Your task to perform on an android device: toggle translation in the chrome app Image 0: 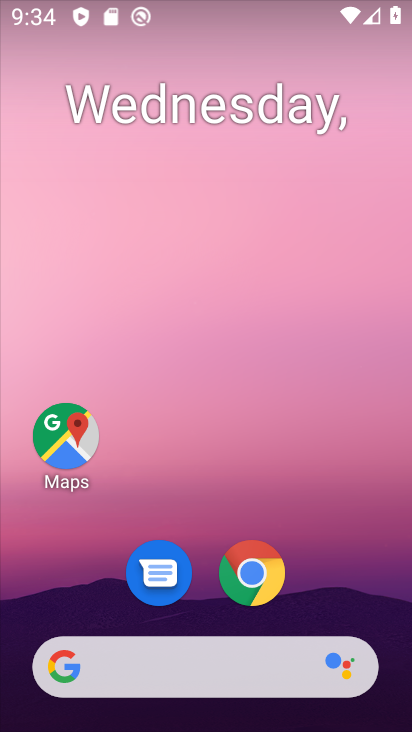
Step 0: drag from (343, 582) to (344, 283)
Your task to perform on an android device: toggle translation in the chrome app Image 1: 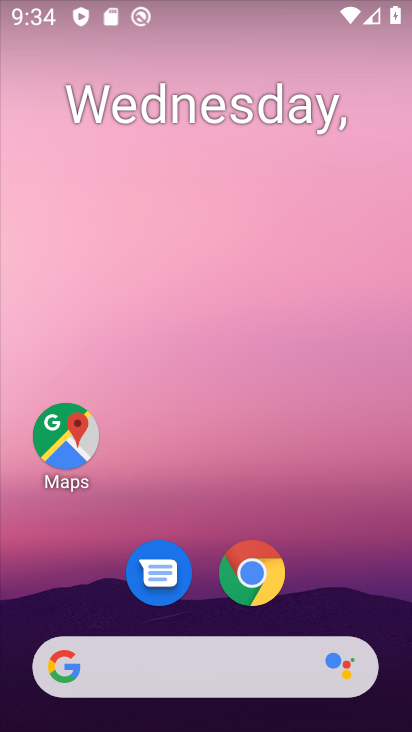
Step 1: click (245, 559)
Your task to perform on an android device: toggle translation in the chrome app Image 2: 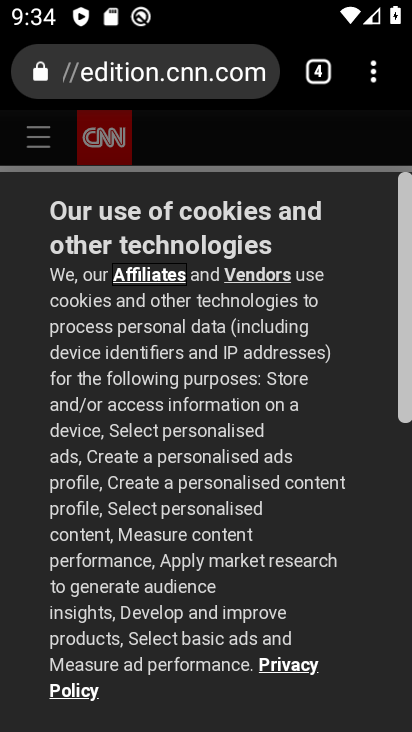
Step 2: click (367, 70)
Your task to perform on an android device: toggle translation in the chrome app Image 3: 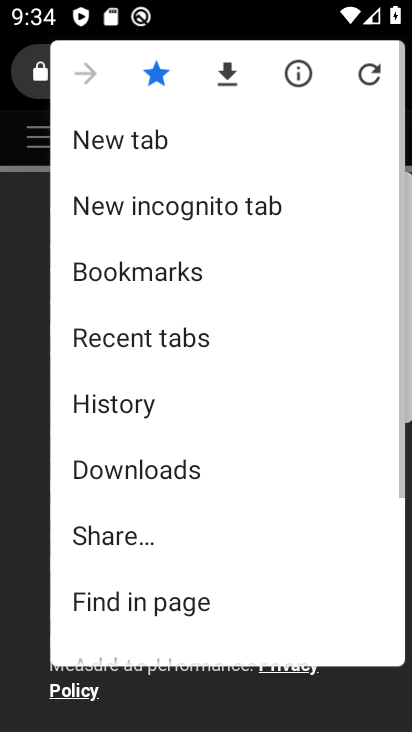
Step 3: drag from (171, 581) to (235, 294)
Your task to perform on an android device: toggle translation in the chrome app Image 4: 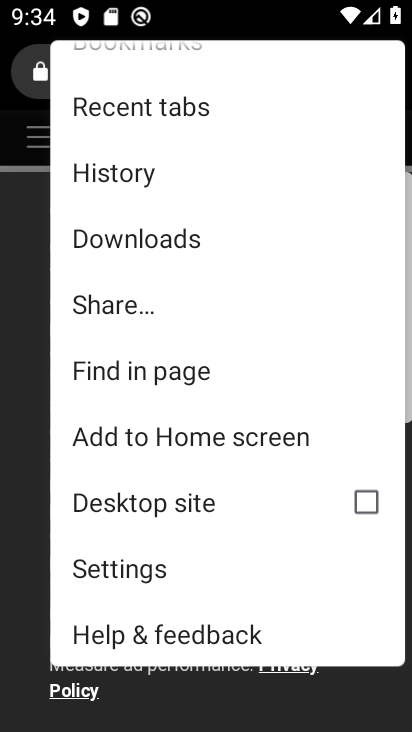
Step 4: click (145, 577)
Your task to perform on an android device: toggle translation in the chrome app Image 5: 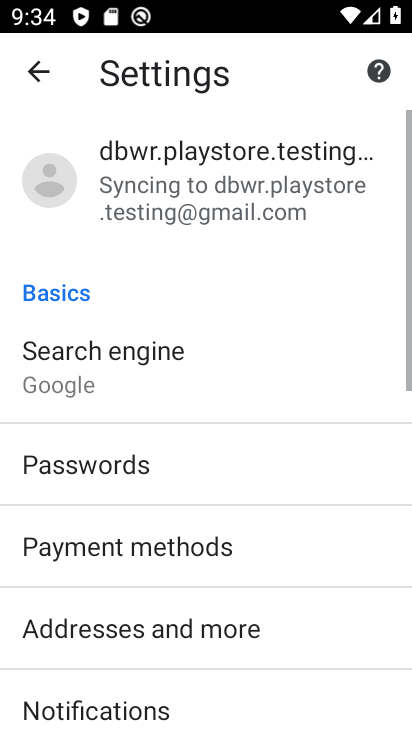
Step 5: drag from (156, 611) to (216, 329)
Your task to perform on an android device: toggle translation in the chrome app Image 6: 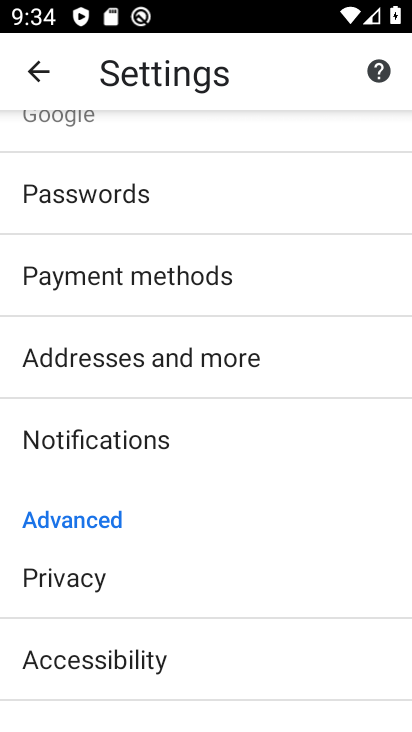
Step 6: drag from (152, 648) to (204, 341)
Your task to perform on an android device: toggle translation in the chrome app Image 7: 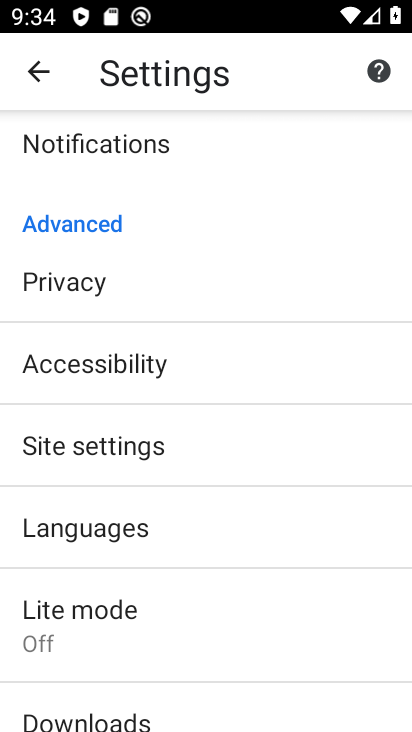
Step 7: click (154, 526)
Your task to perform on an android device: toggle translation in the chrome app Image 8: 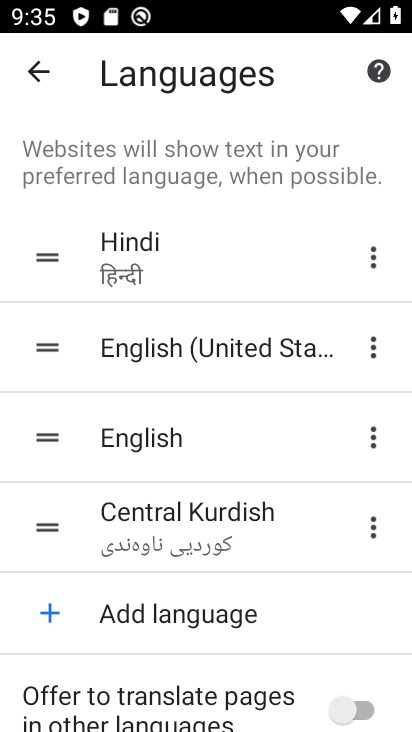
Step 8: click (353, 706)
Your task to perform on an android device: toggle translation in the chrome app Image 9: 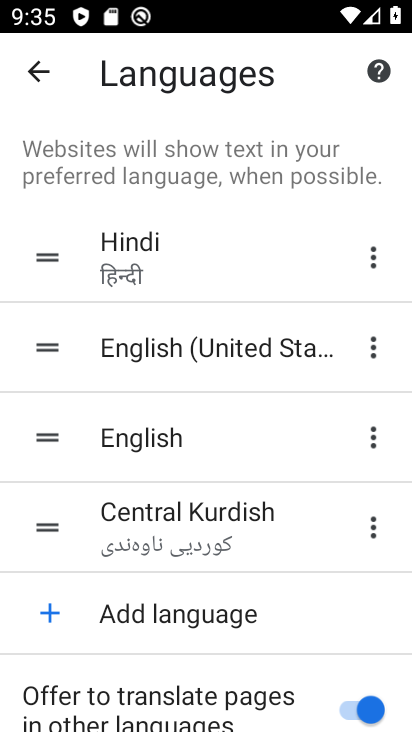
Step 9: task complete